Your task to perform on an android device: Is it going to rain this weekend? Image 0: 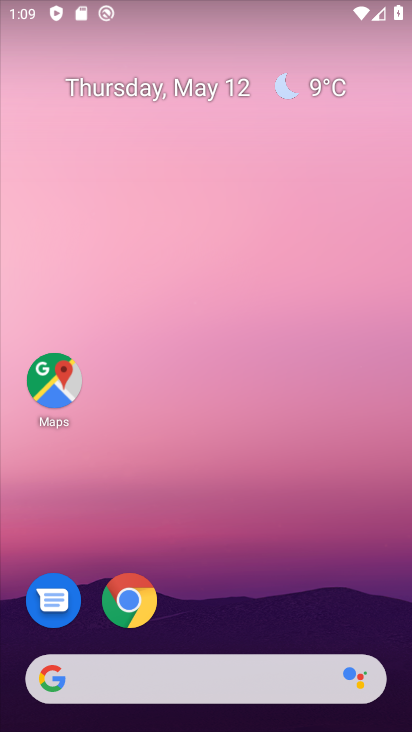
Step 0: drag from (300, 602) to (314, 61)
Your task to perform on an android device: Is it going to rain this weekend? Image 1: 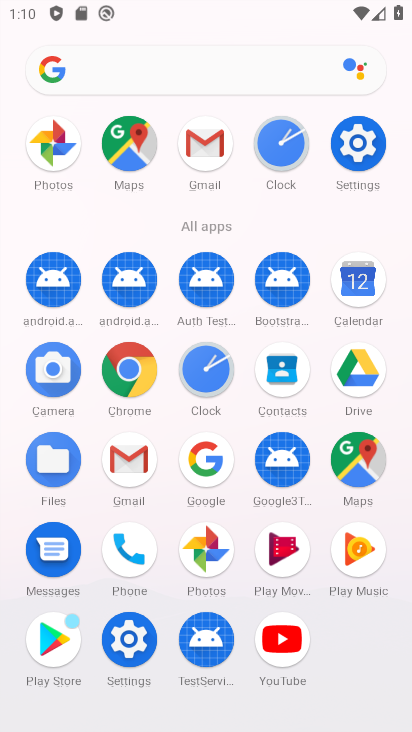
Step 1: click (117, 343)
Your task to perform on an android device: Is it going to rain this weekend? Image 2: 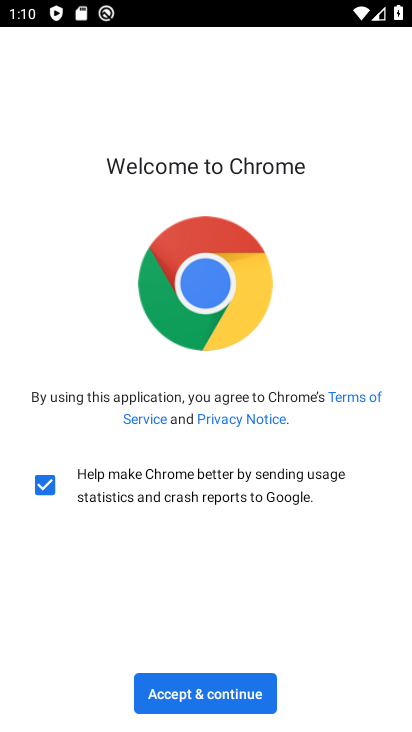
Step 2: click (200, 702)
Your task to perform on an android device: Is it going to rain this weekend? Image 3: 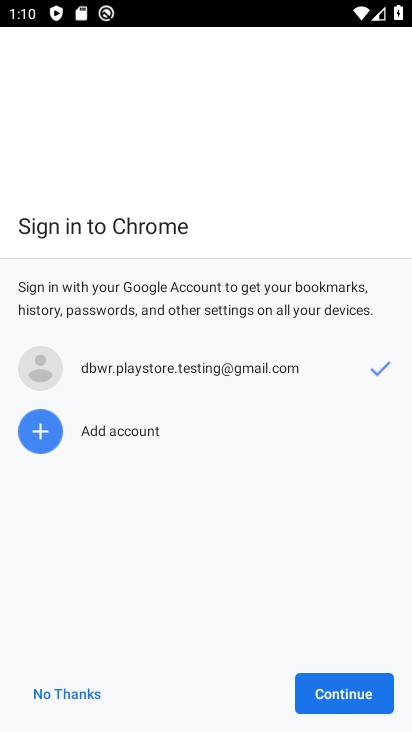
Step 3: click (356, 678)
Your task to perform on an android device: Is it going to rain this weekend? Image 4: 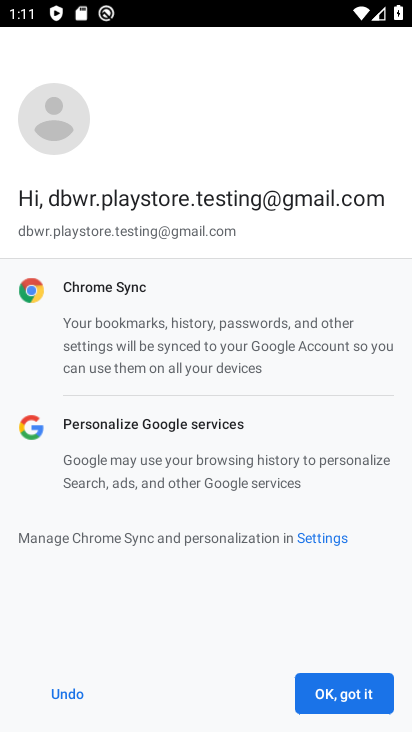
Step 4: click (342, 672)
Your task to perform on an android device: Is it going to rain this weekend? Image 5: 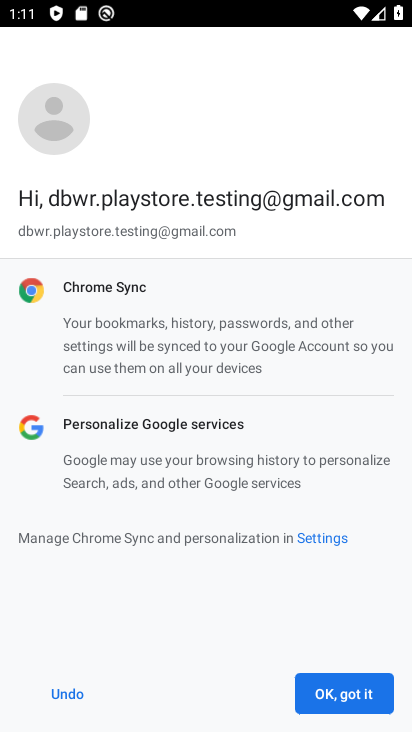
Step 5: click (358, 690)
Your task to perform on an android device: Is it going to rain this weekend? Image 6: 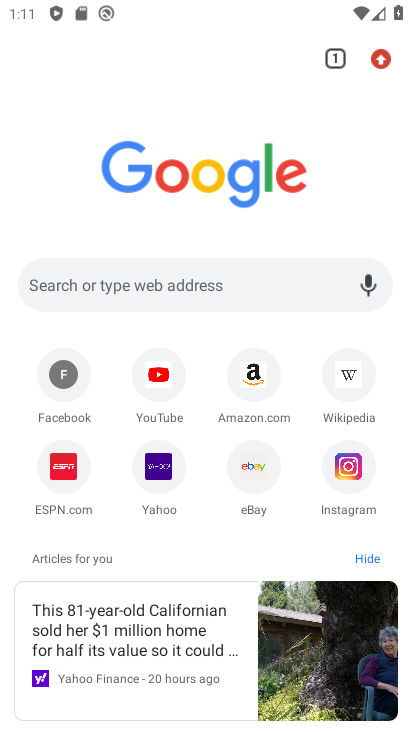
Step 6: click (185, 285)
Your task to perform on an android device: Is it going to rain this weekend? Image 7: 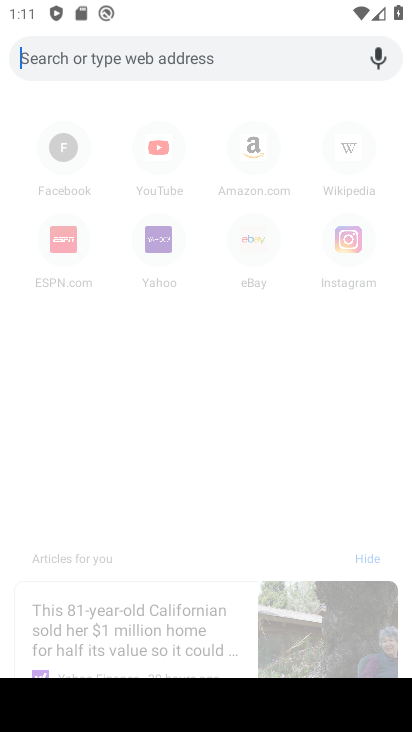
Step 7: click (248, 61)
Your task to perform on an android device: Is it going to rain this weekend? Image 8: 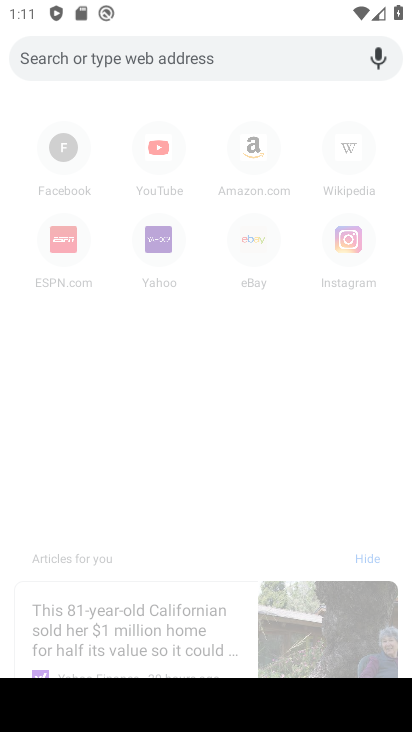
Step 8: type "Is it going to rain this weekend?"
Your task to perform on an android device: Is it going to rain this weekend? Image 9: 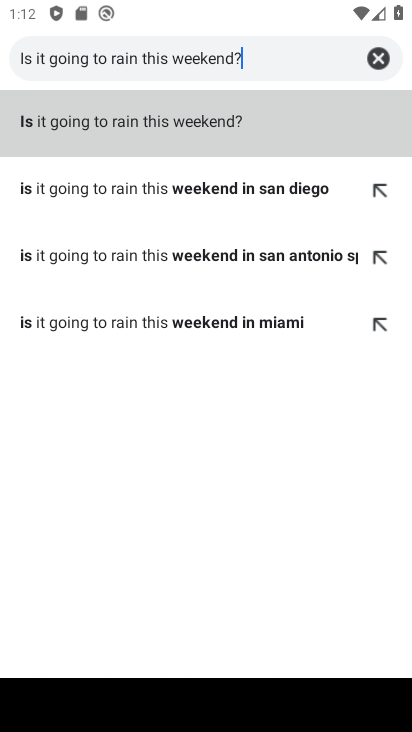
Step 9: click (261, 117)
Your task to perform on an android device: Is it going to rain this weekend? Image 10: 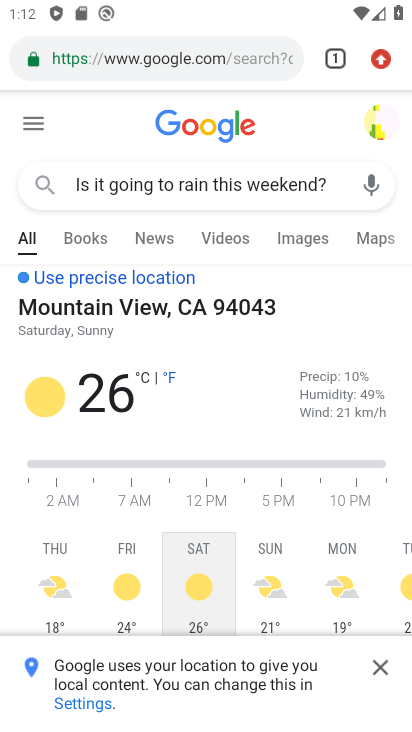
Step 10: task complete